Your task to perform on an android device: Open Maps and search for coffee Image 0: 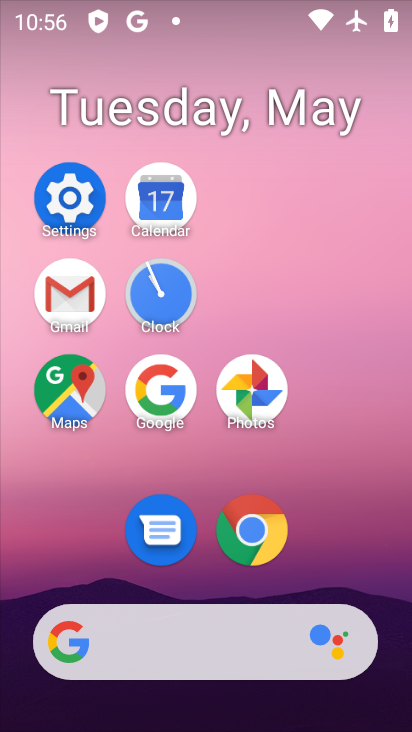
Step 0: click (87, 377)
Your task to perform on an android device: Open Maps and search for coffee Image 1: 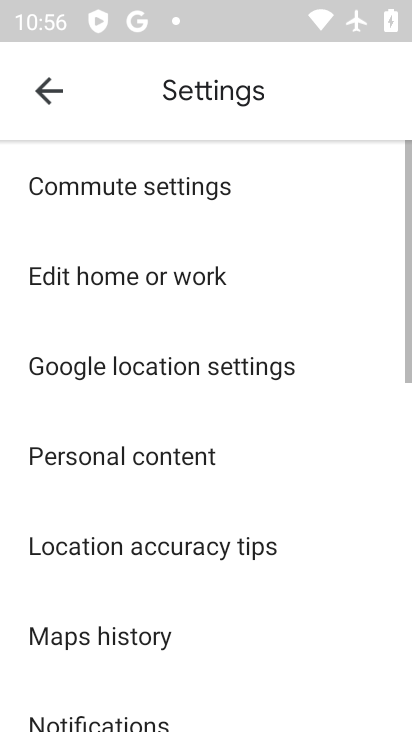
Step 1: click (18, 81)
Your task to perform on an android device: Open Maps and search for coffee Image 2: 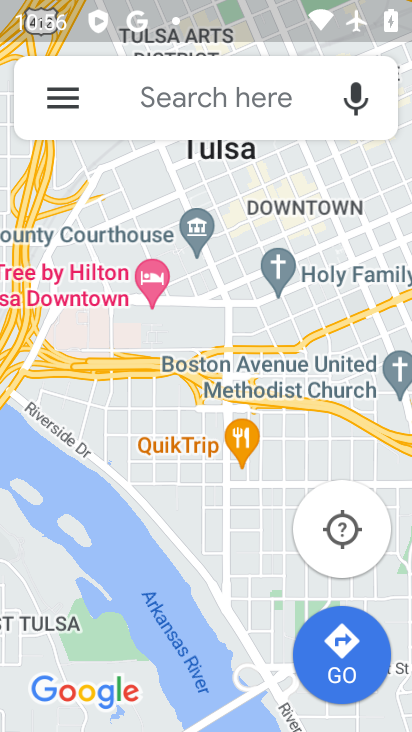
Step 2: click (165, 116)
Your task to perform on an android device: Open Maps and search for coffee Image 3: 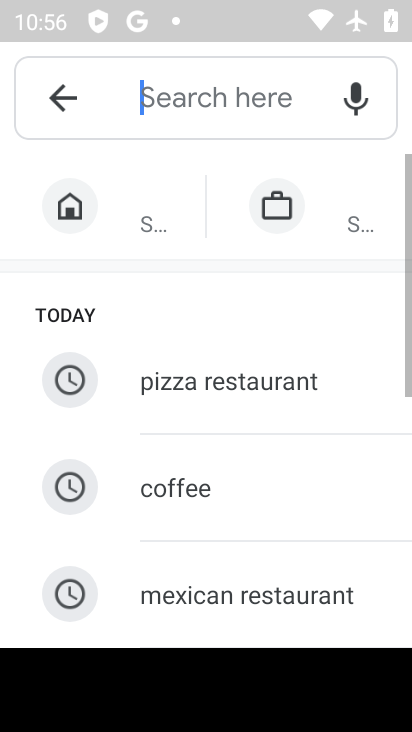
Step 3: click (190, 471)
Your task to perform on an android device: Open Maps and search for coffee Image 4: 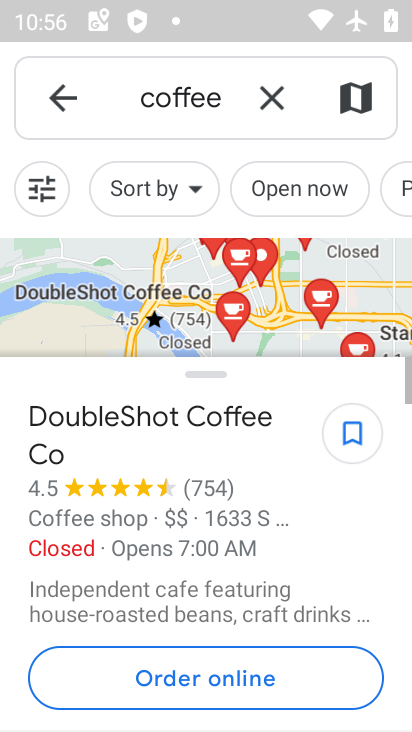
Step 4: task complete